Your task to perform on an android device: What's the weather going to be tomorrow? Image 0: 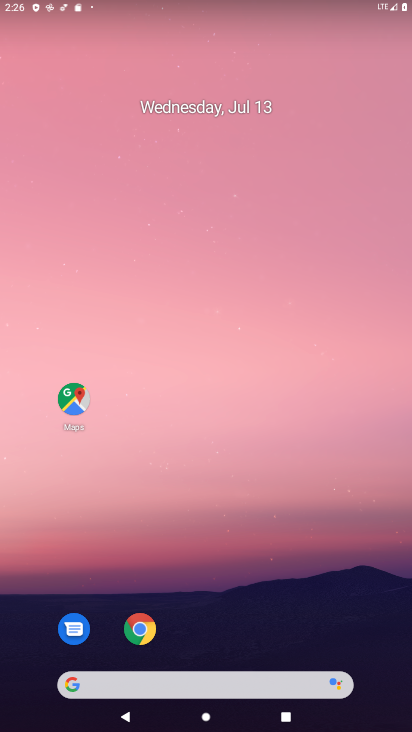
Step 0: drag from (251, 629) to (232, 105)
Your task to perform on an android device: What's the weather going to be tomorrow? Image 1: 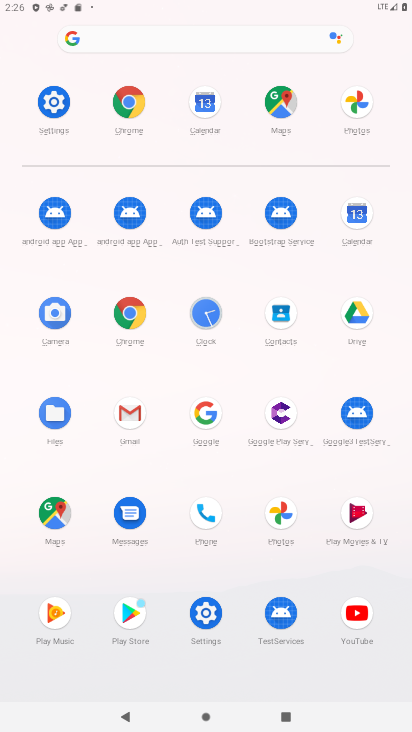
Step 1: click (184, 43)
Your task to perform on an android device: What's the weather going to be tomorrow? Image 2: 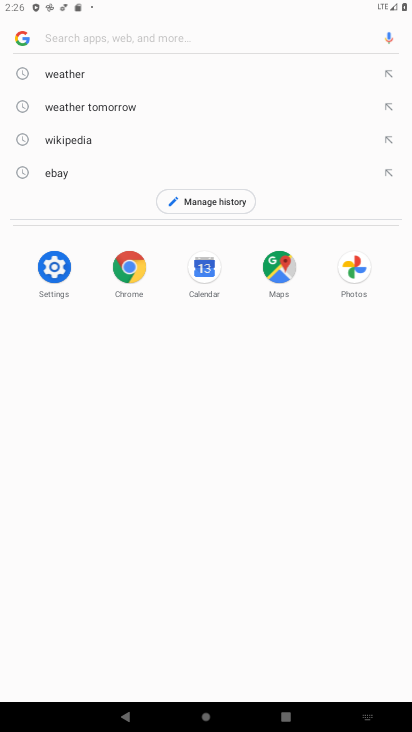
Step 2: type "weather"
Your task to perform on an android device: What's the weather going to be tomorrow? Image 3: 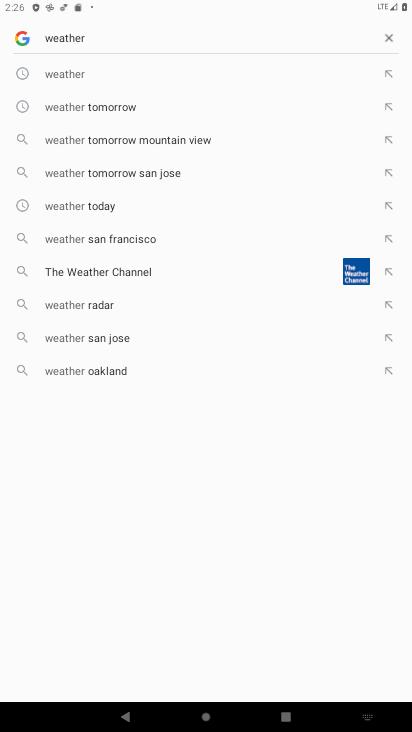
Step 3: click (141, 62)
Your task to perform on an android device: What's the weather going to be tomorrow? Image 4: 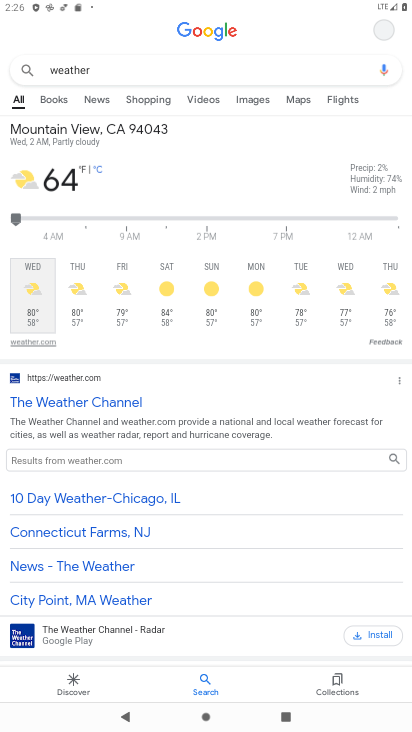
Step 4: task complete